Your task to perform on an android device: open sync settings in chrome Image 0: 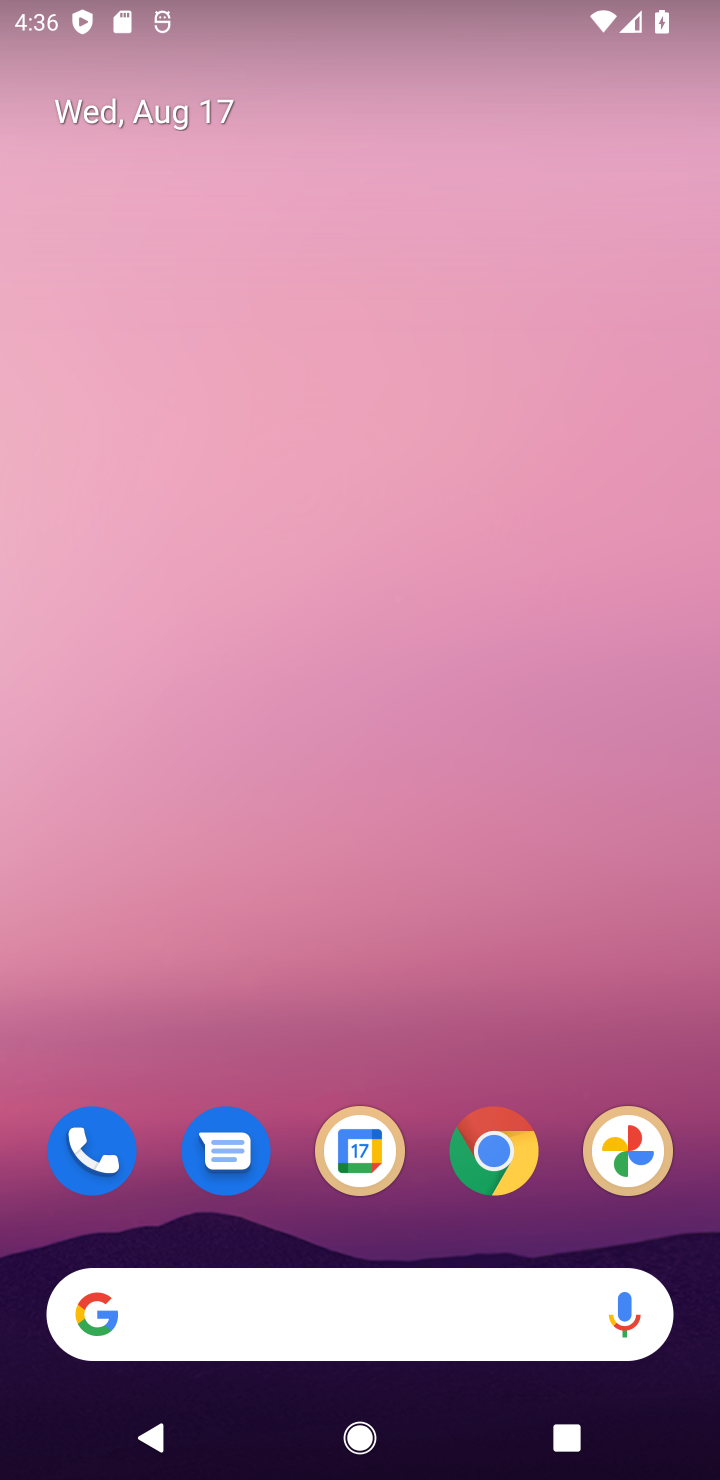
Step 0: click (545, 1174)
Your task to perform on an android device: open sync settings in chrome Image 1: 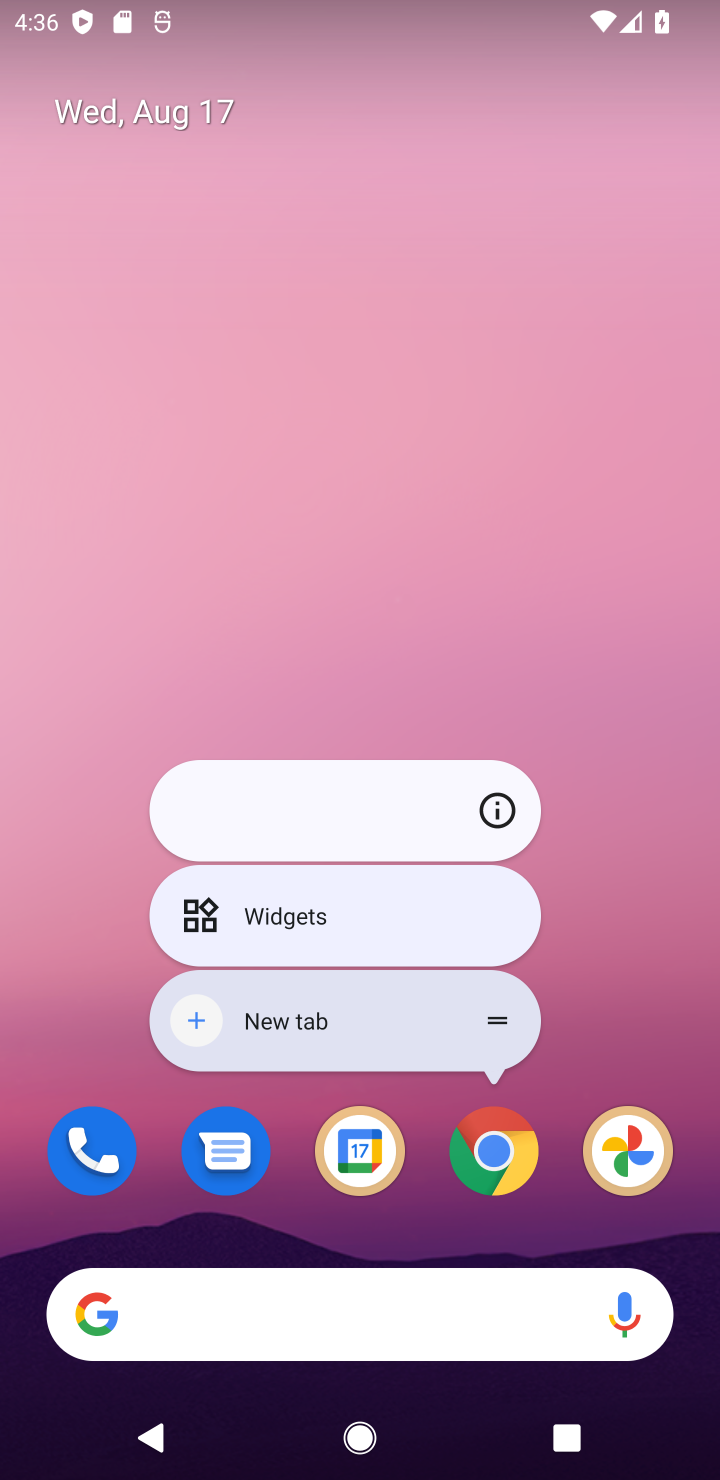
Step 1: click (523, 1166)
Your task to perform on an android device: open sync settings in chrome Image 2: 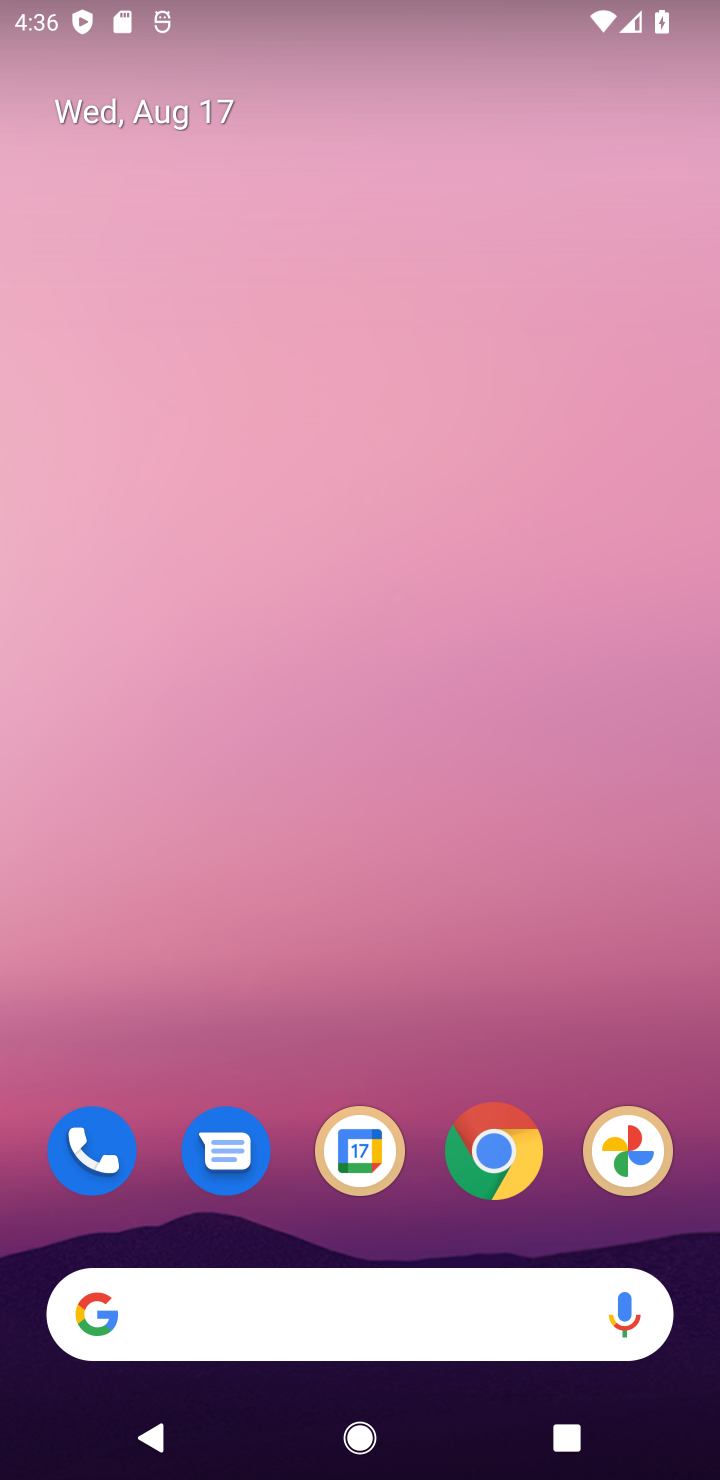
Step 2: click (523, 1166)
Your task to perform on an android device: open sync settings in chrome Image 3: 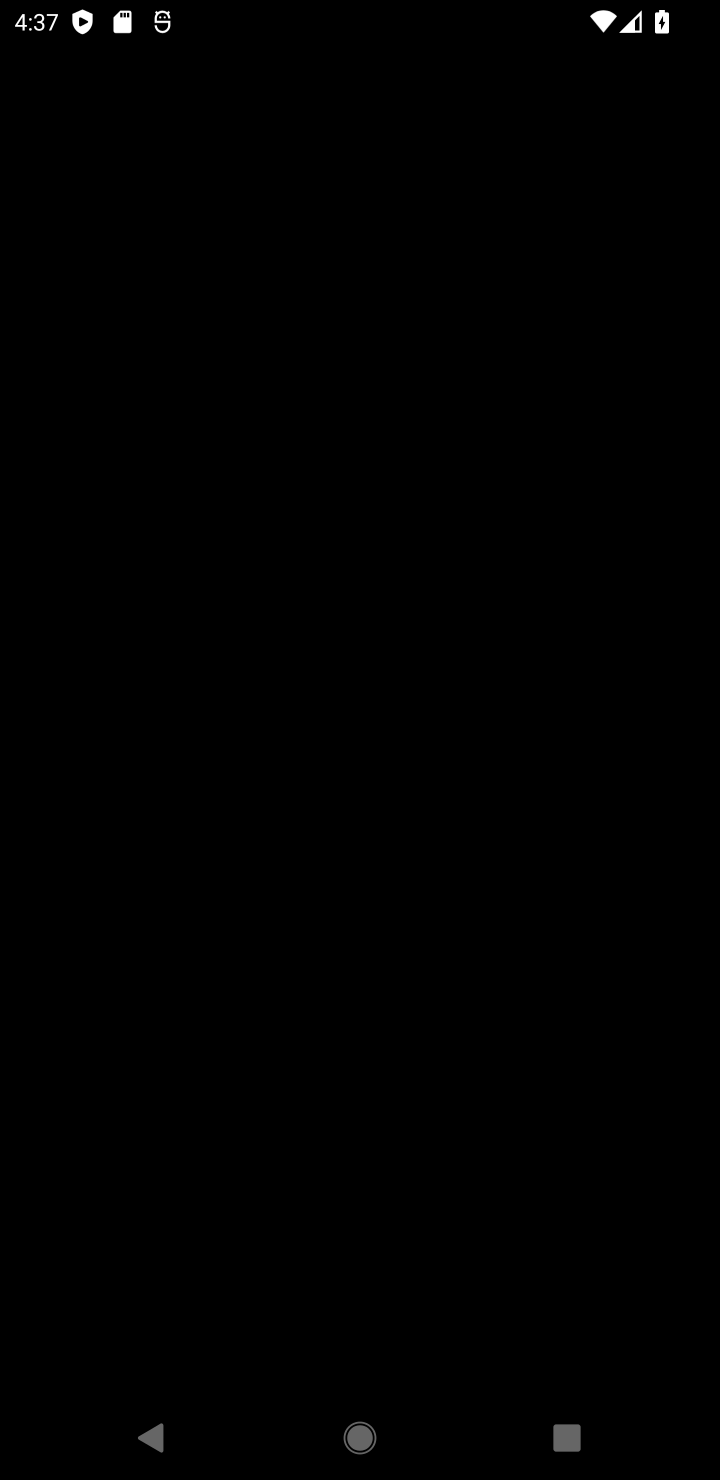
Step 3: task complete